Your task to perform on an android device: Add lg ultragear to the cart on amazon Image 0: 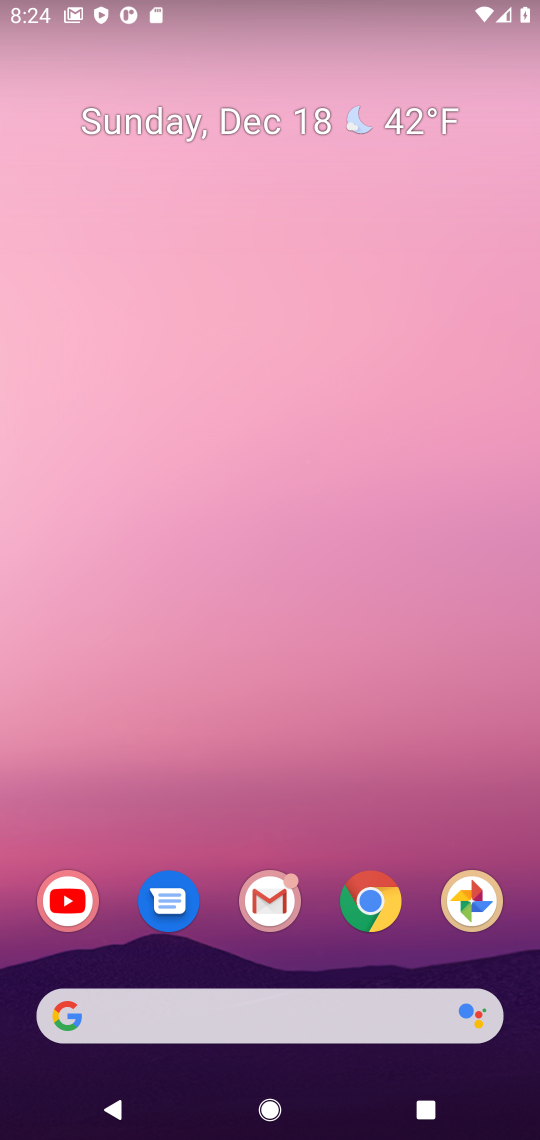
Step 0: click (389, 890)
Your task to perform on an android device: Add lg ultragear to the cart on amazon Image 1: 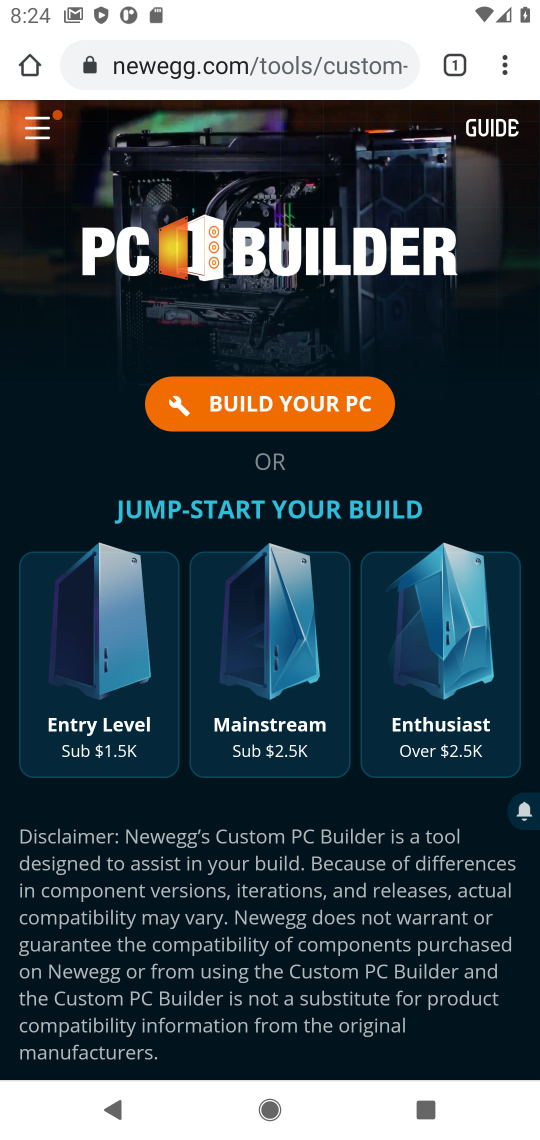
Step 1: click (215, 58)
Your task to perform on an android device: Add lg ultragear to the cart on amazon Image 2: 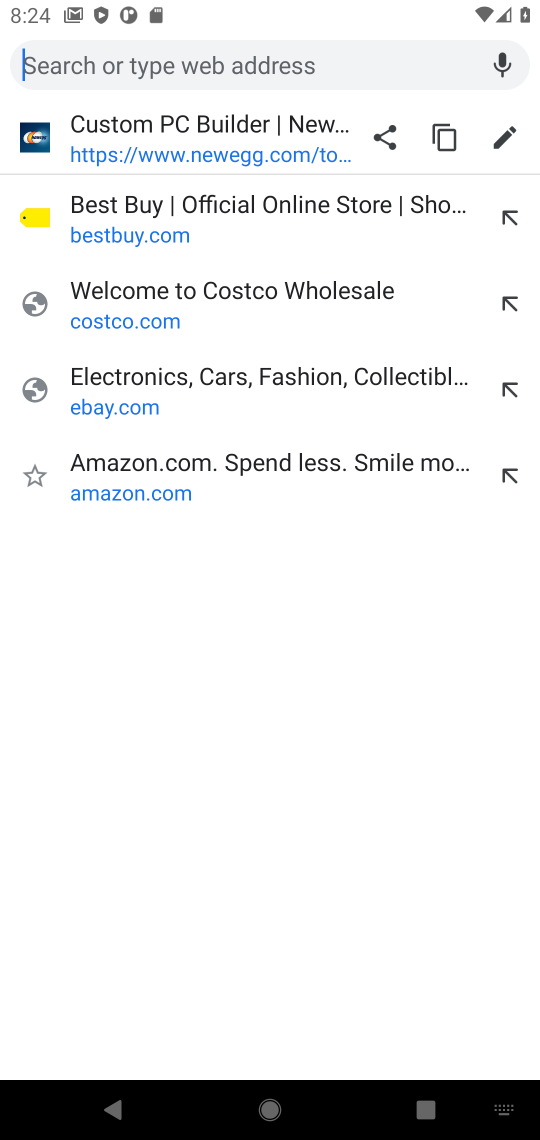
Step 2: type "amazon"
Your task to perform on an android device: Add lg ultragear to the cart on amazon Image 3: 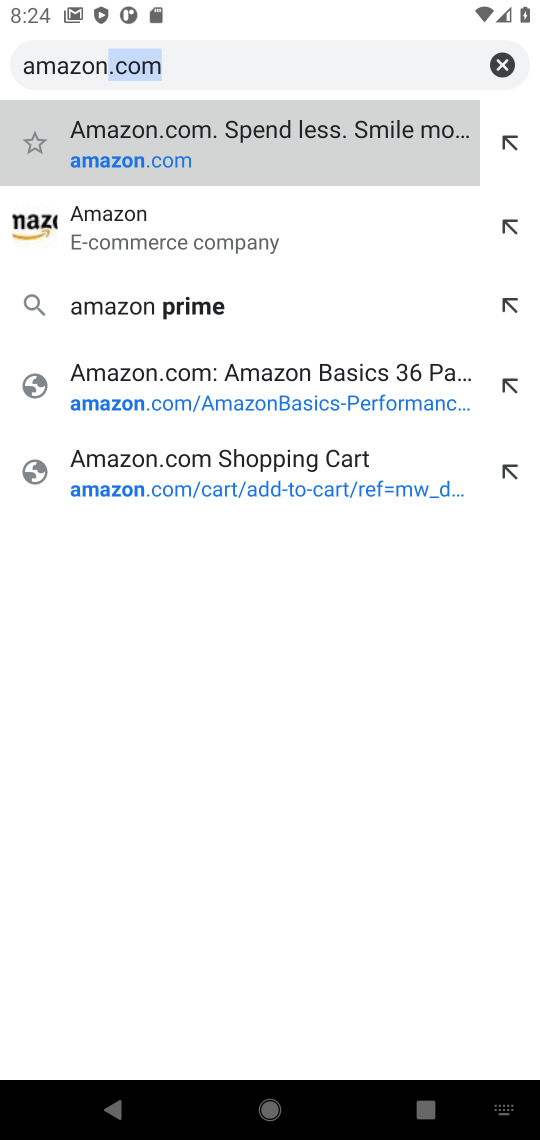
Step 3: click (151, 130)
Your task to perform on an android device: Add lg ultragear to the cart on amazon Image 4: 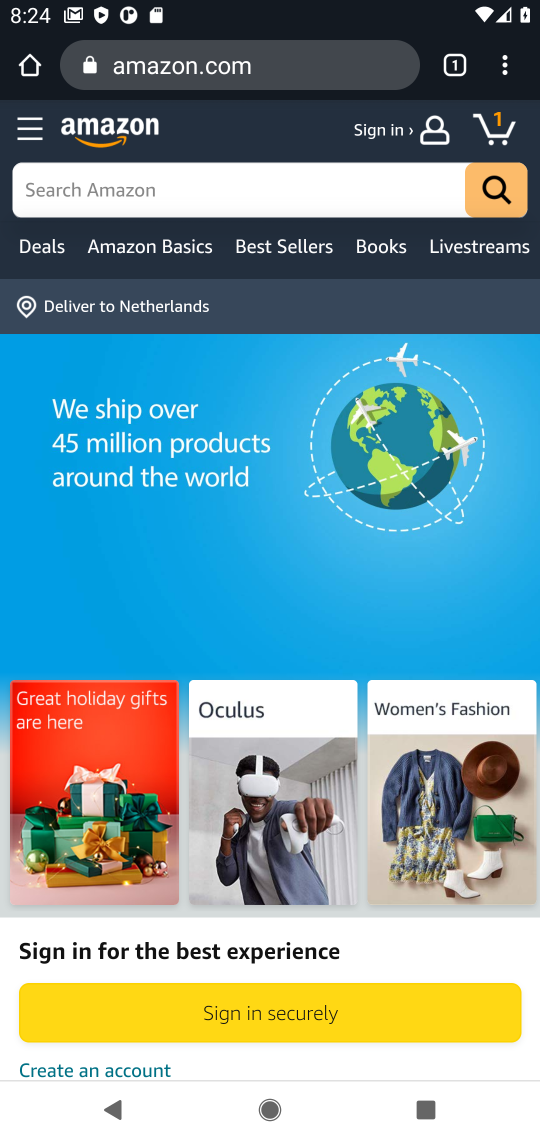
Step 4: click (156, 187)
Your task to perform on an android device: Add lg ultragear to the cart on amazon Image 5: 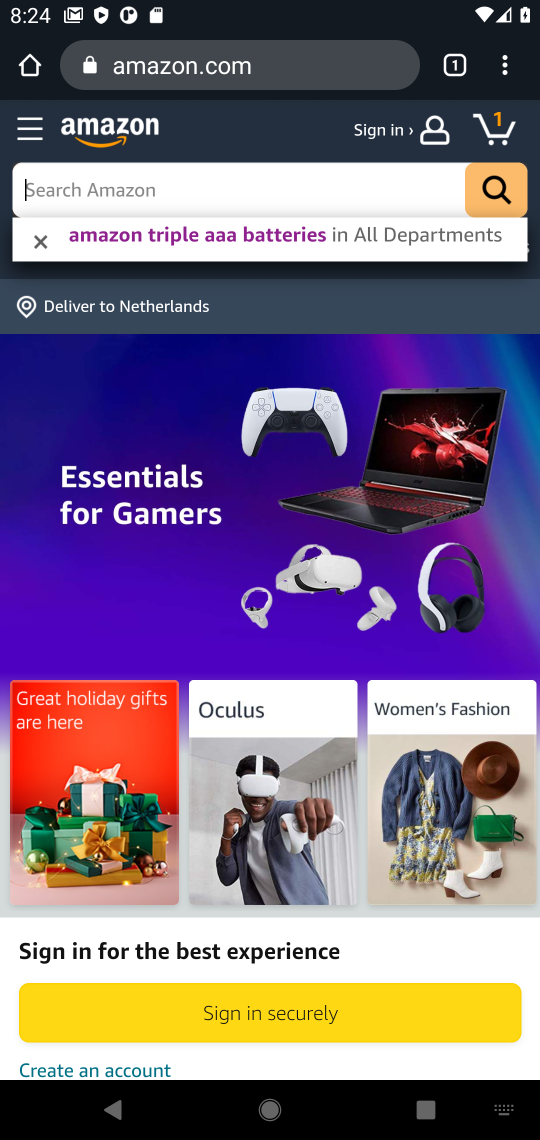
Step 5: type "lg ultra gear"
Your task to perform on an android device: Add lg ultragear to the cart on amazon Image 6: 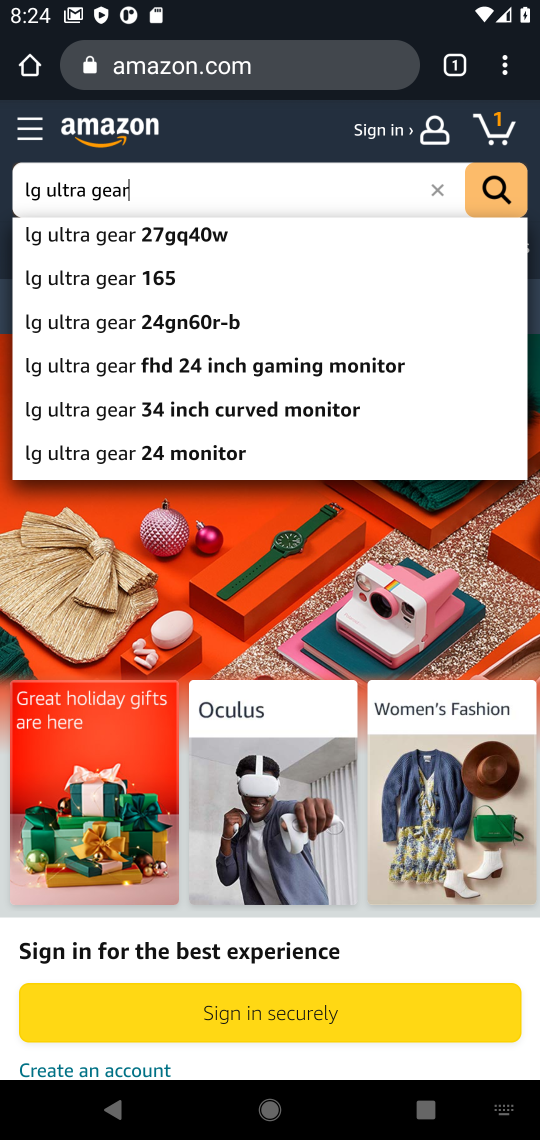
Step 6: click (150, 247)
Your task to perform on an android device: Add lg ultragear to the cart on amazon Image 7: 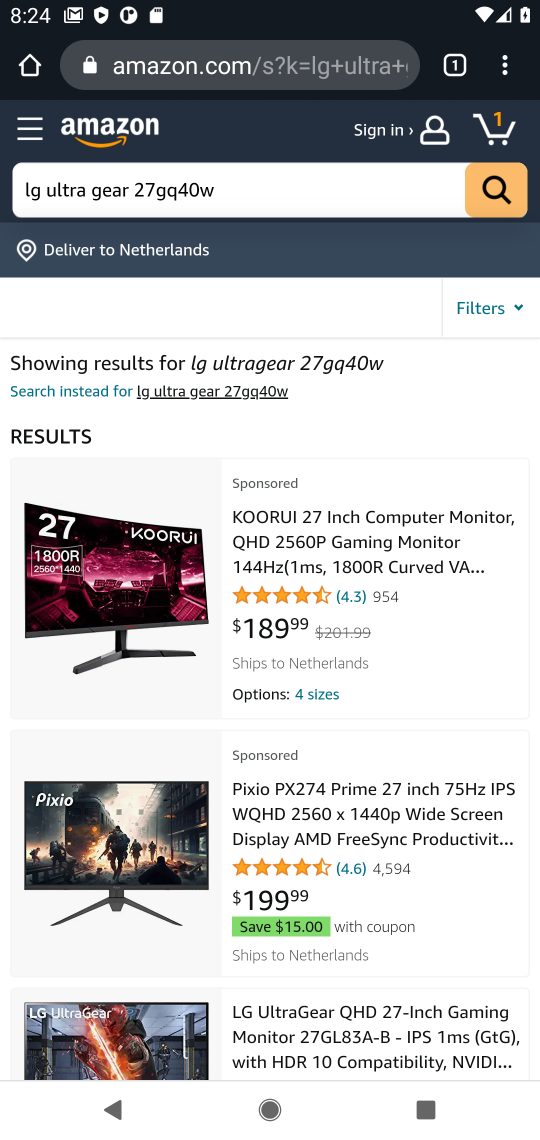
Step 7: click (337, 514)
Your task to perform on an android device: Add lg ultragear to the cart on amazon Image 8: 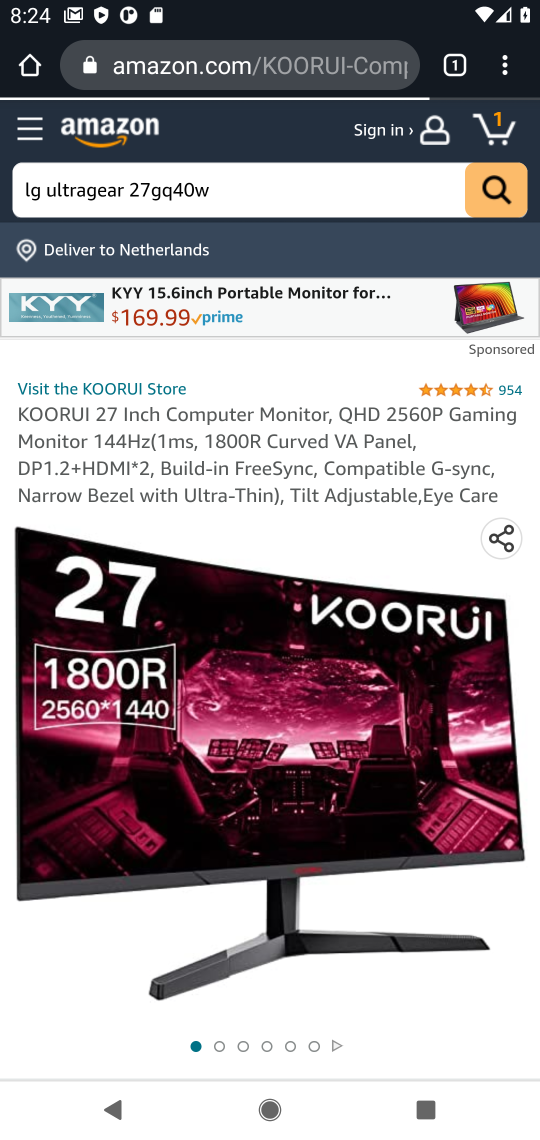
Step 8: drag from (422, 873) to (352, 282)
Your task to perform on an android device: Add lg ultragear to the cart on amazon Image 9: 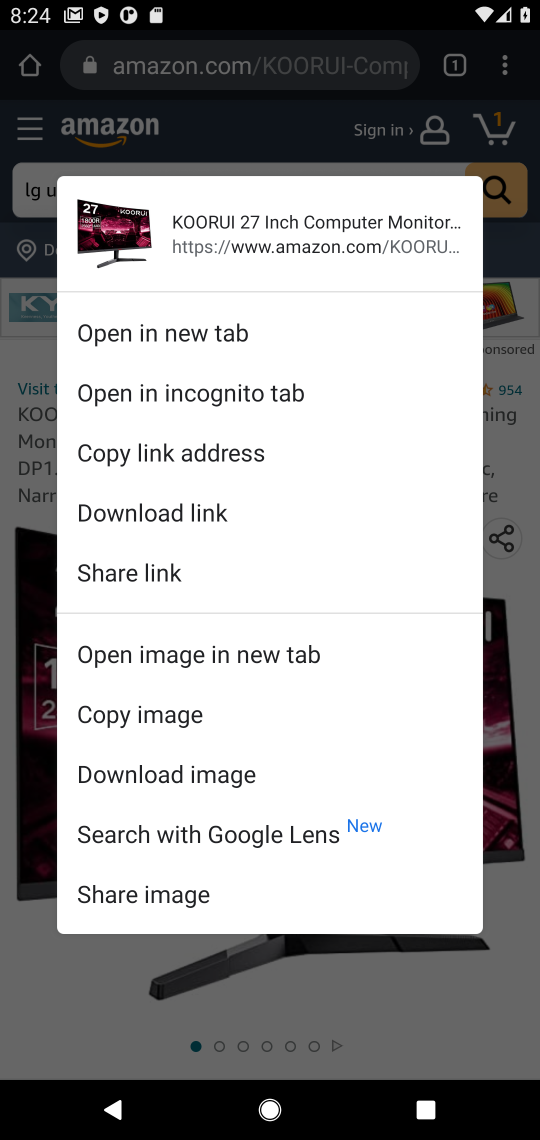
Step 9: click (398, 1043)
Your task to perform on an android device: Add lg ultragear to the cart on amazon Image 10: 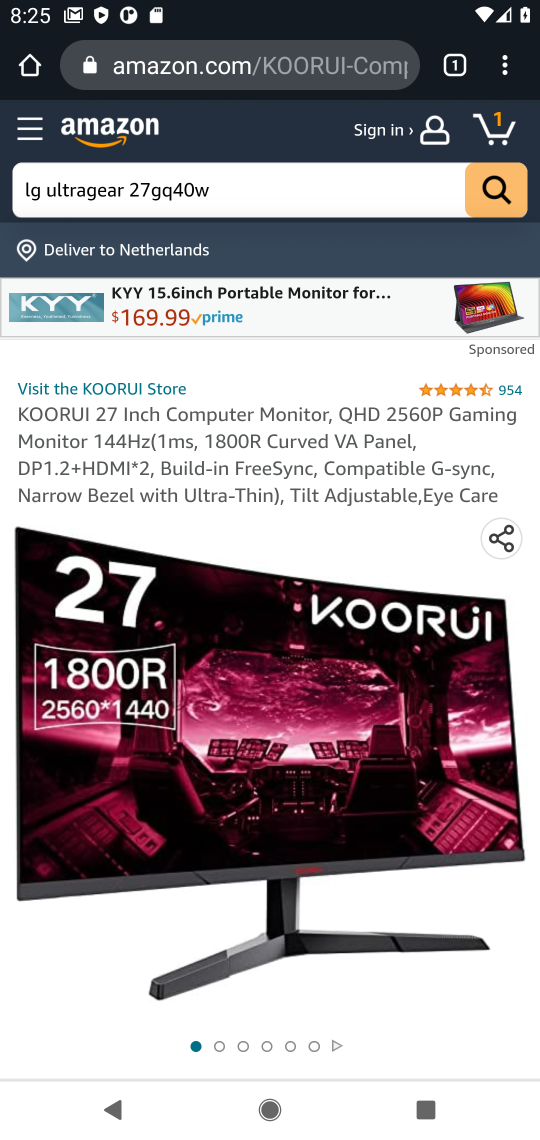
Step 10: drag from (431, 1012) to (369, 567)
Your task to perform on an android device: Add lg ultragear to the cart on amazon Image 11: 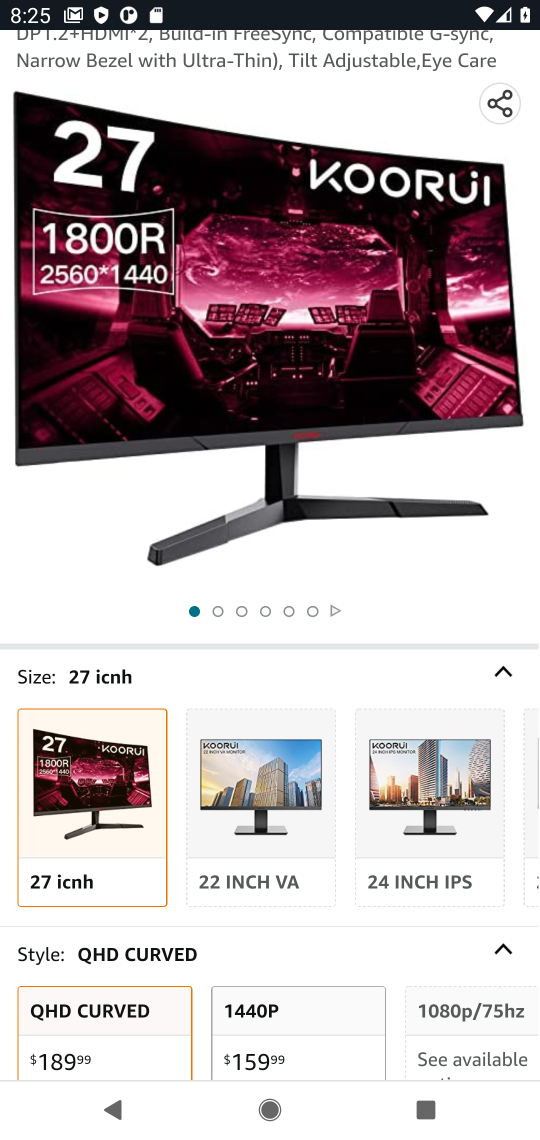
Step 11: drag from (396, 931) to (336, 516)
Your task to perform on an android device: Add lg ultragear to the cart on amazon Image 12: 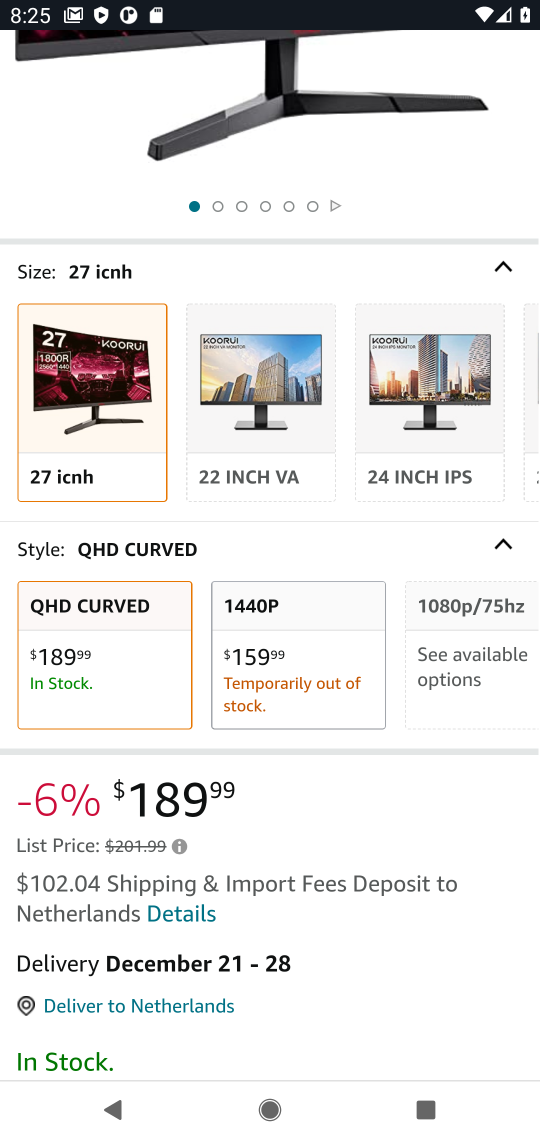
Step 12: drag from (357, 904) to (290, 349)
Your task to perform on an android device: Add lg ultragear to the cart on amazon Image 13: 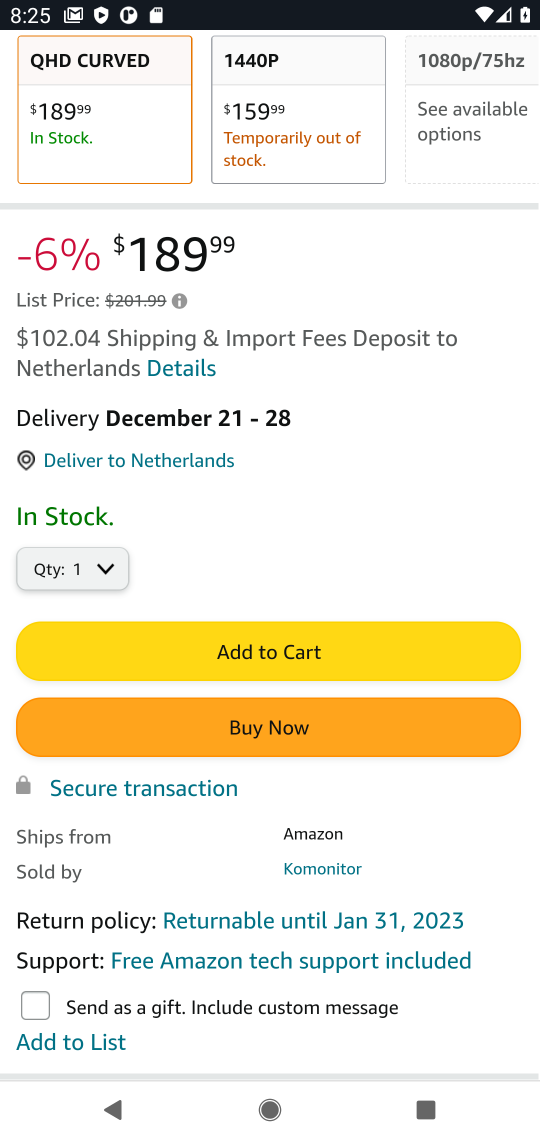
Step 13: click (379, 665)
Your task to perform on an android device: Add lg ultragear to the cart on amazon Image 14: 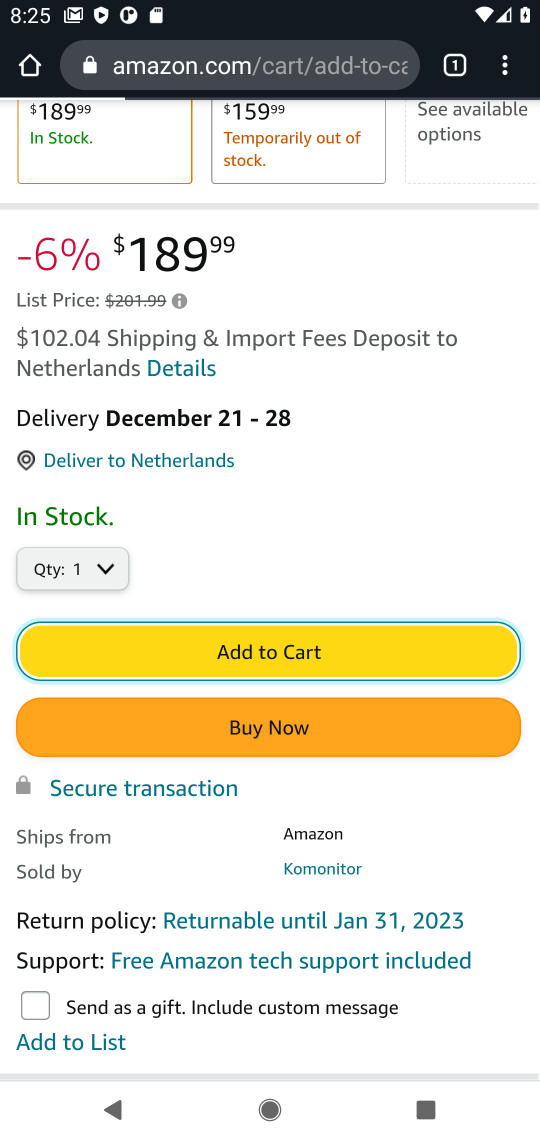
Step 14: task complete